Your task to perform on an android device: remove spam from my inbox in the gmail app Image 0: 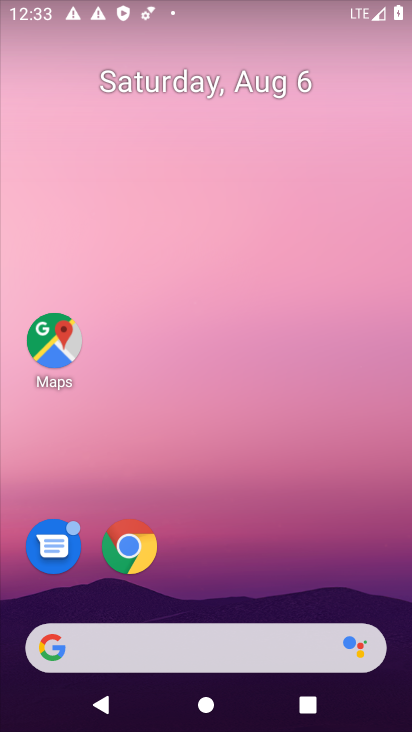
Step 0: drag from (371, 589) to (329, 141)
Your task to perform on an android device: remove spam from my inbox in the gmail app Image 1: 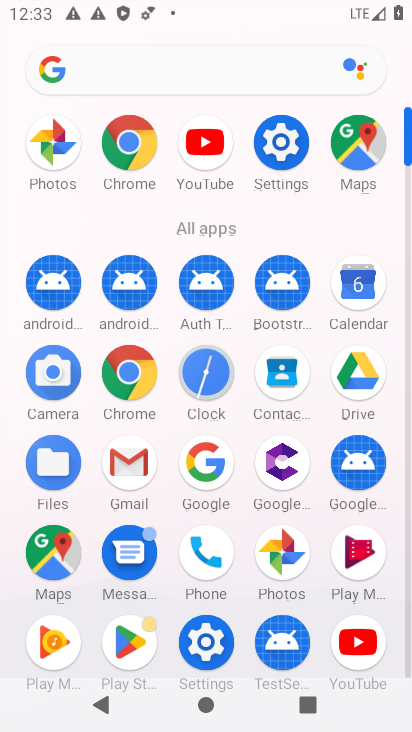
Step 1: click (128, 463)
Your task to perform on an android device: remove spam from my inbox in the gmail app Image 2: 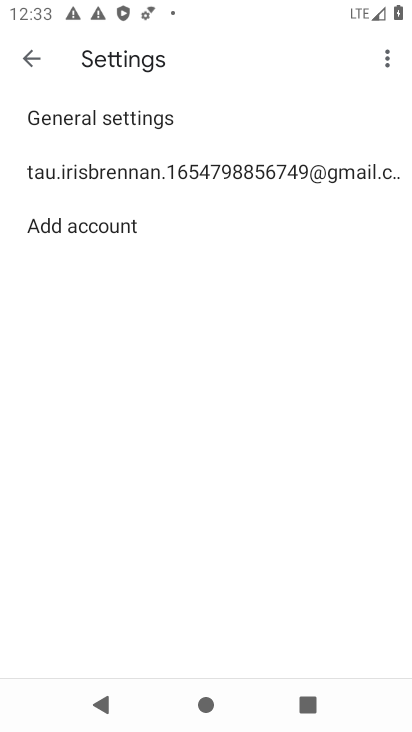
Step 2: press back button
Your task to perform on an android device: remove spam from my inbox in the gmail app Image 3: 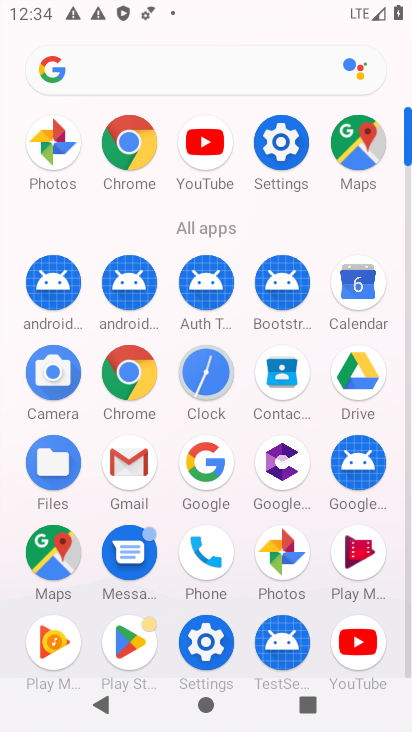
Step 3: click (128, 467)
Your task to perform on an android device: remove spam from my inbox in the gmail app Image 4: 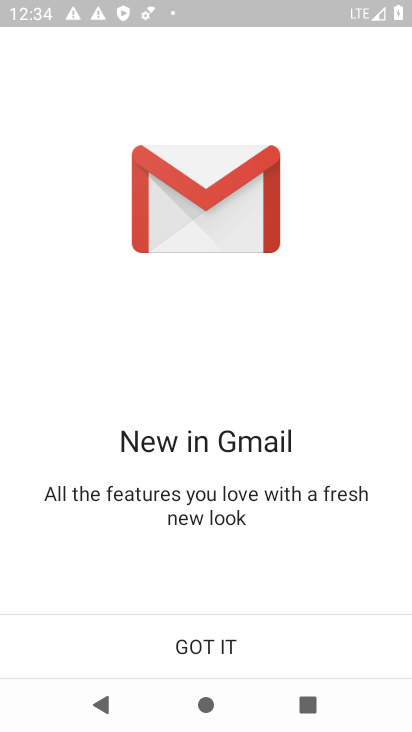
Step 4: click (207, 643)
Your task to perform on an android device: remove spam from my inbox in the gmail app Image 5: 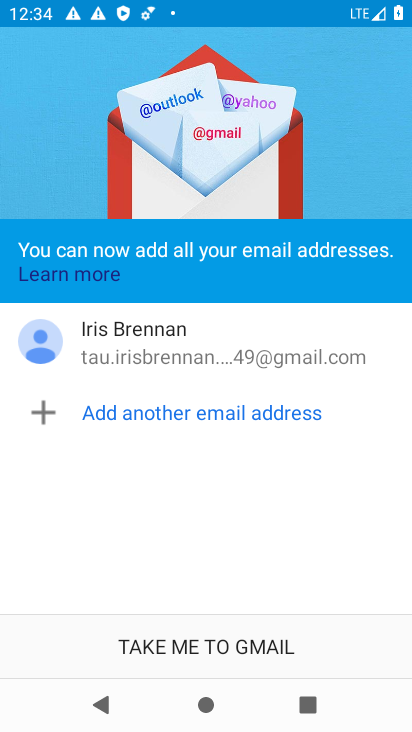
Step 5: click (207, 643)
Your task to perform on an android device: remove spam from my inbox in the gmail app Image 6: 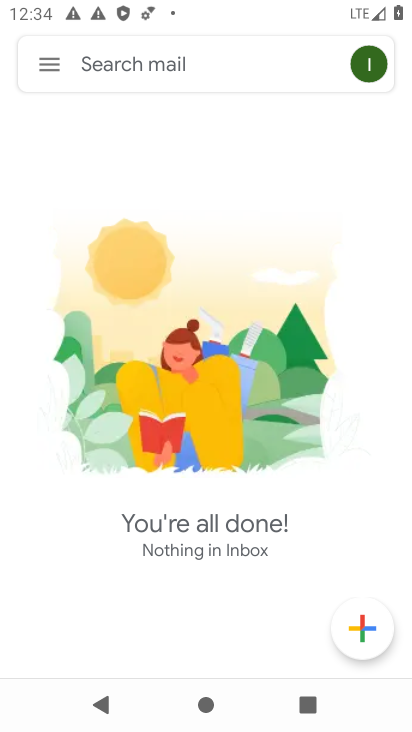
Step 6: click (44, 59)
Your task to perform on an android device: remove spam from my inbox in the gmail app Image 7: 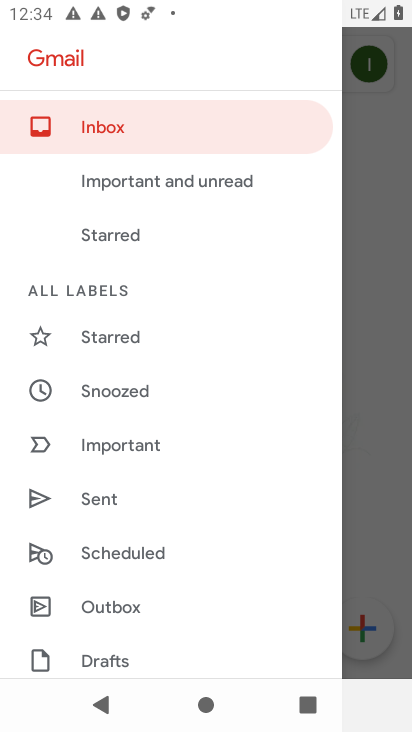
Step 7: drag from (186, 557) to (206, 232)
Your task to perform on an android device: remove spam from my inbox in the gmail app Image 8: 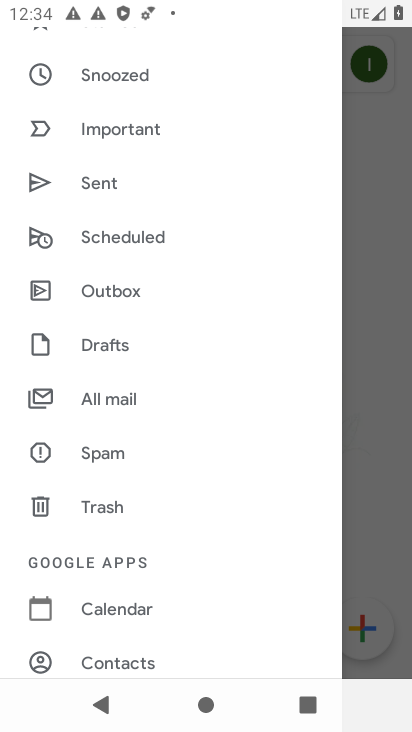
Step 8: click (97, 449)
Your task to perform on an android device: remove spam from my inbox in the gmail app Image 9: 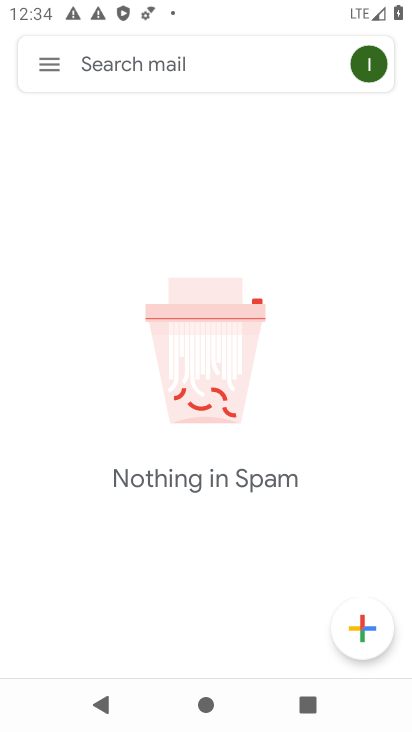
Step 9: task complete